Your task to perform on an android device: change alarm snooze length Image 0: 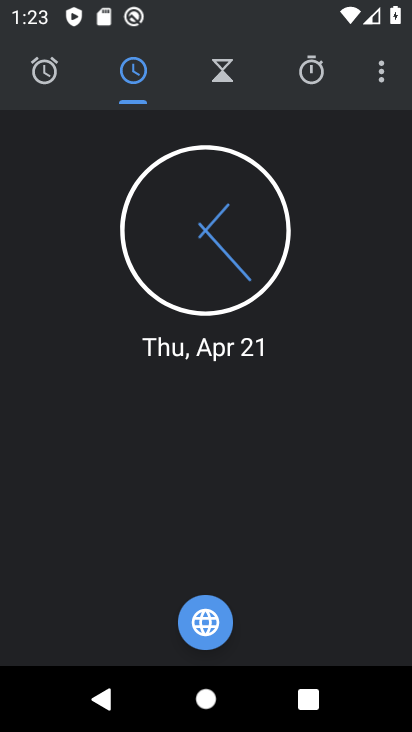
Step 0: click (385, 76)
Your task to perform on an android device: change alarm snooze length Image 1: 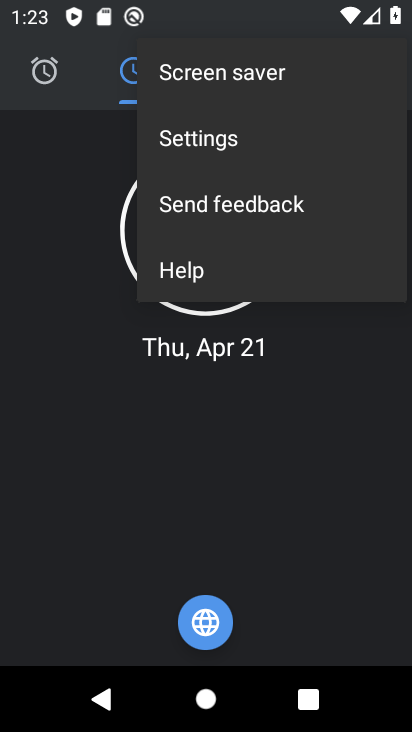
Step 1: click (218, 140)
Your task to perform on an android device: change alarm snooze length Image 2: 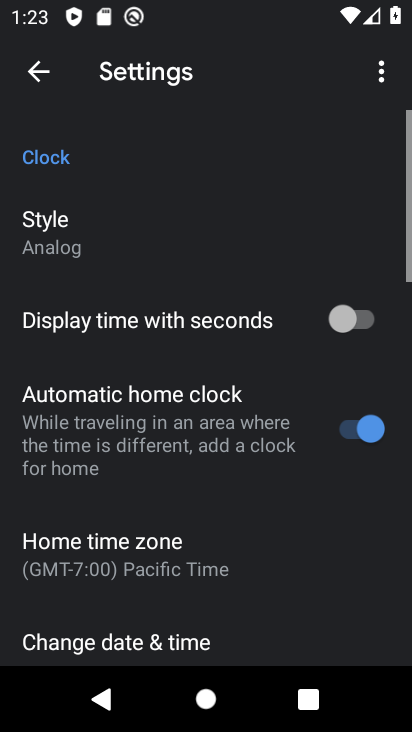
Step 2: drag from (140, 605) to (172, 61)
Your task to perform on an android device: change alarm snooze length Image 3: 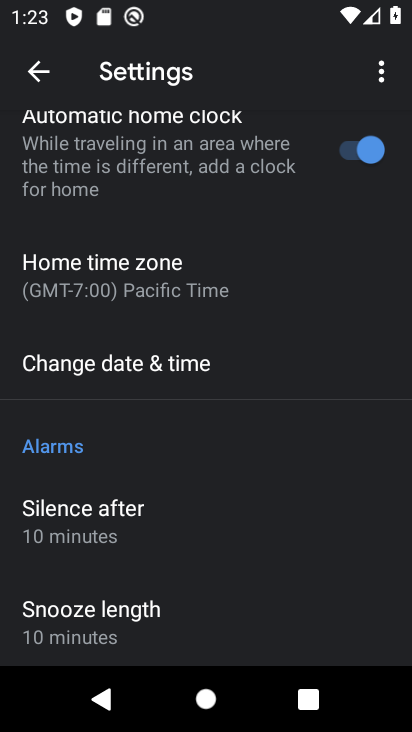
Step 3: click (111, 598)
Your task to perform on an android device: change alarm snooze length Image 4: 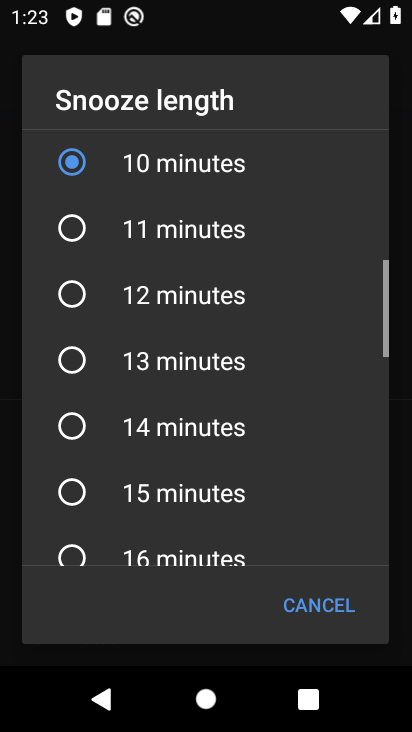
Step 4: click (81, 220)
Your task to perform on an android device: change alarm snooze length Image 5: 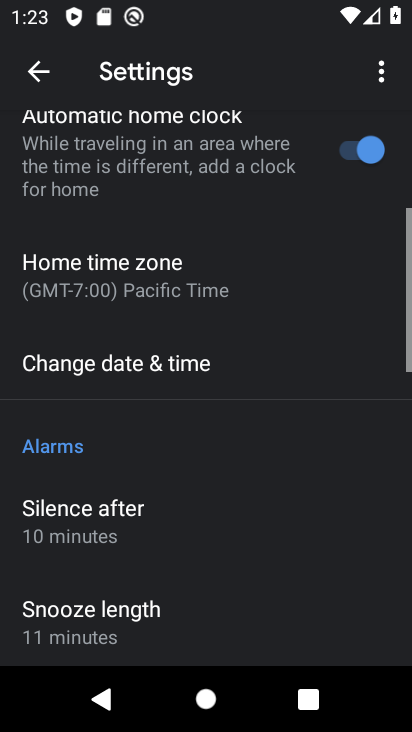
Step 5: task complete